Your task to perform on an android device: See recent photos Image 0: 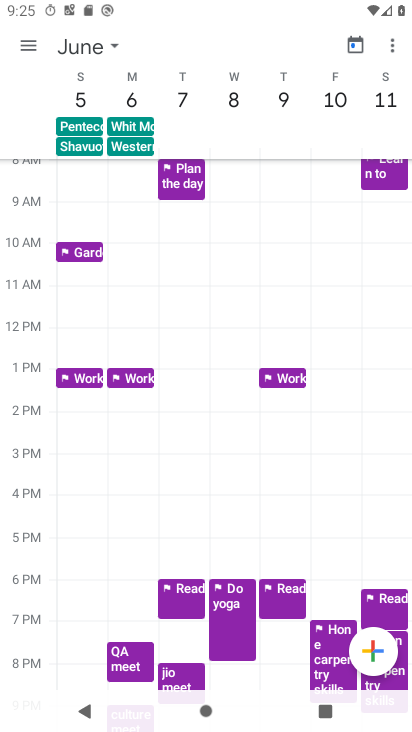
Step 0: press home button
Your task to perform on an android device: See recent photos Image 1: 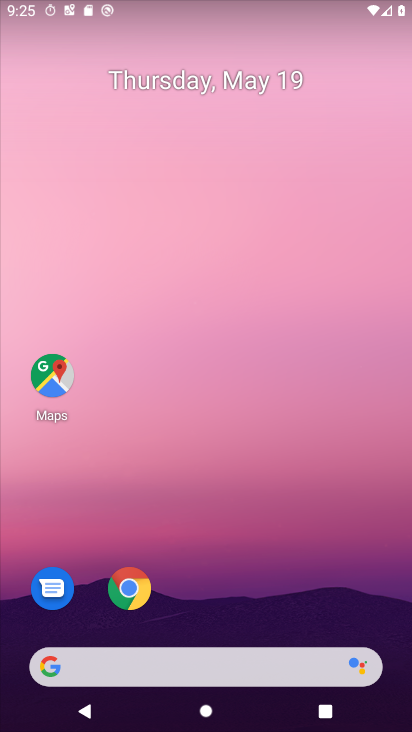
Step 1: drag from (174, 662) to (335, 116)
Your task to perform on an android device: See recent photos Image 2: 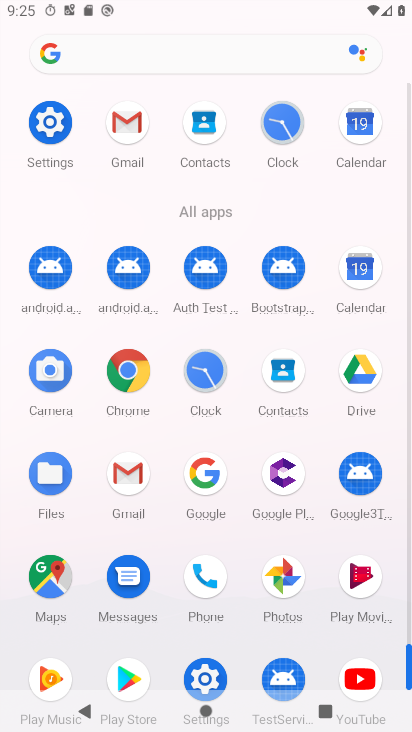
Step 2: click (284, 574)
Your task to perform on an android device: See recent photos Image 3: 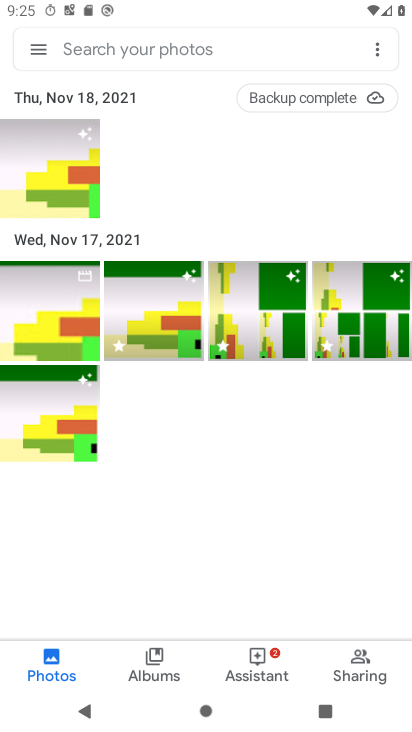
Step 3: click (163, 677)
Your task to perform on an android device: See recent photos Image 4: 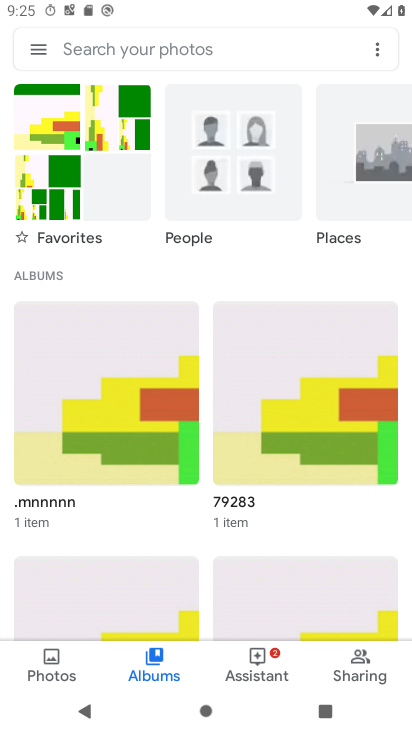
Step 4: task complete